Your task to perform on an android device: Open the web browser Image 0: 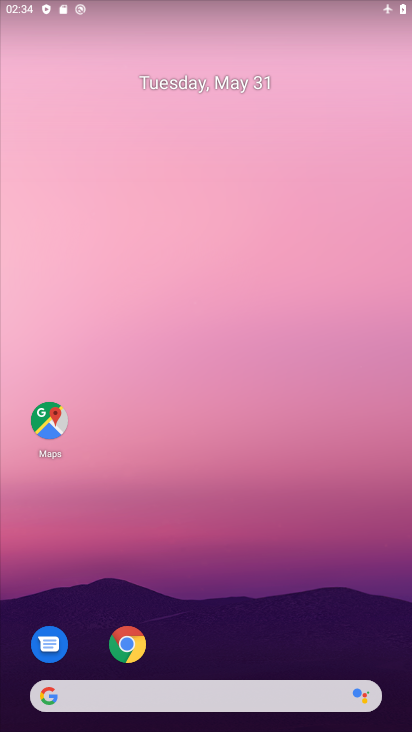
Step 0: drag from (263, 528) to (279, 148)
Your task to perform on an android device: Open the web browser Image 1: 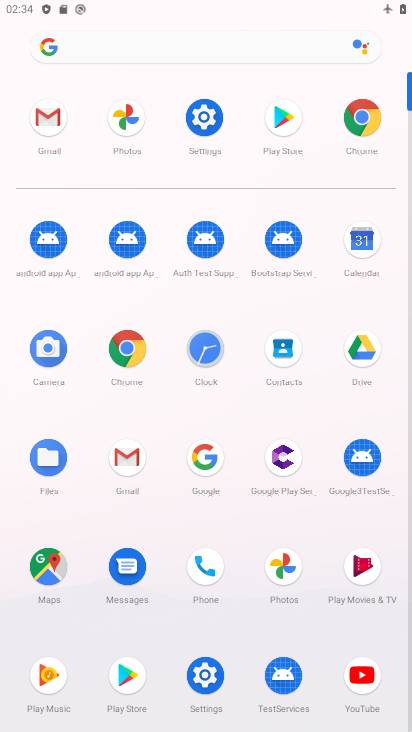
Step 1: click (124, 358)
Your task to perform on an android device: Open the web browser Image 2: 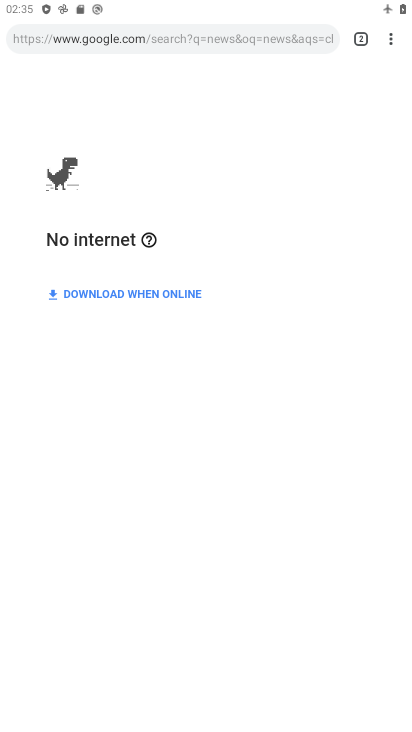
Step 2: task complete